Your task to perform on an android device: Go to eBay Image 0: 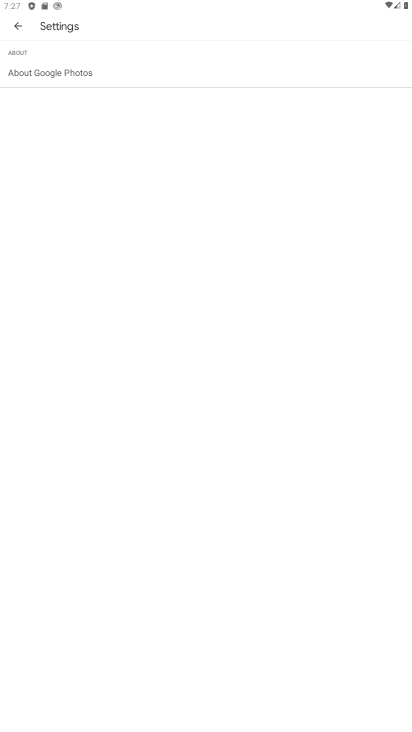
Step 0: press home button
Your task to perform on an android device: Go to eBay Image 1: 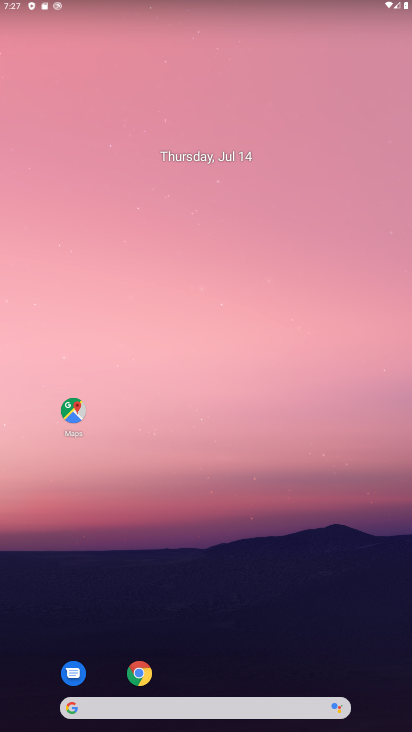
Step 1: drag from (320, 598) to (330, 165)
Your task to perform on an android device: Go to eBay Image 2: 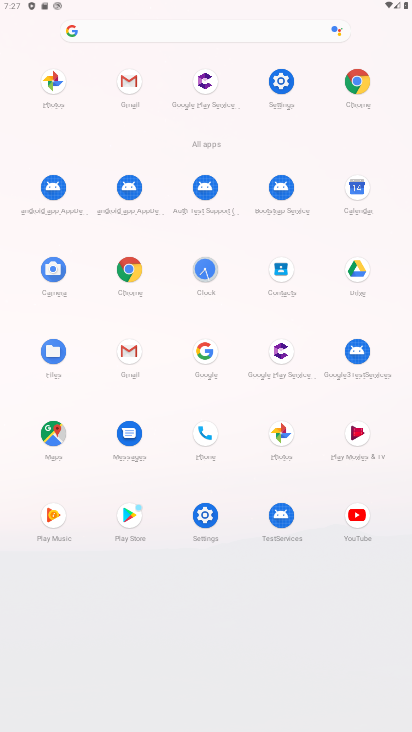
Step 2: click (133, 268)
Your task to perform on an android device: Go to eBay Image 3: 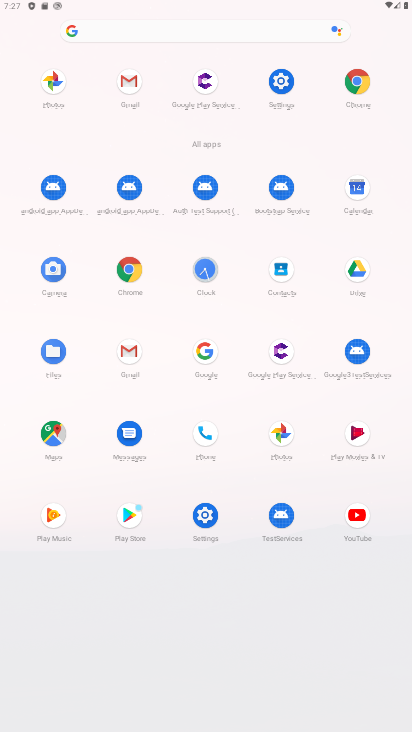
Step 3: click (133, 268)
Your task to perform on an android device: Go to eBay Image 4: 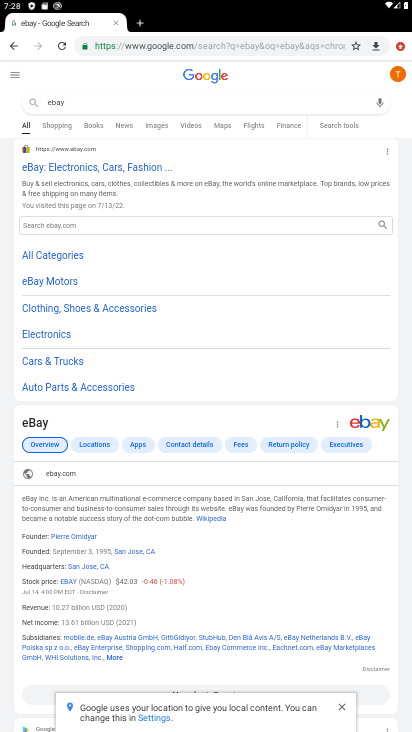
Step 4: task complete